Your task to perform on an android device: Search for pizza restaurants on Maps Image 0: 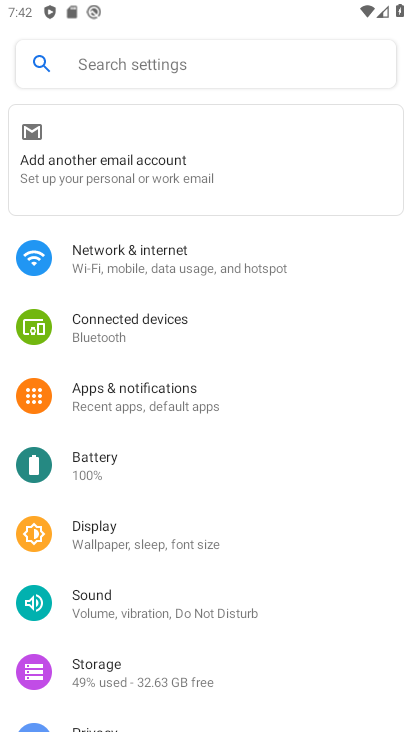
Step 0: press home button
Your task to perform on an android device: Search for pizza restaurants on Maps Image 1: 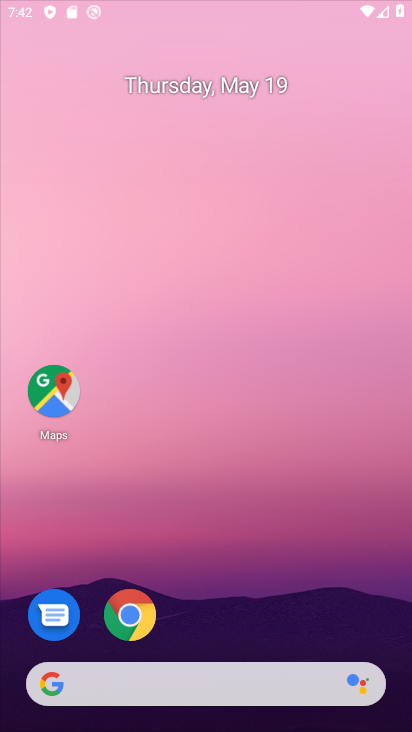
Step 1: drag from (210, 622) to (202, 150)
Your task to perform on an android device: Search for pizza restaurants on Maps Image 2: 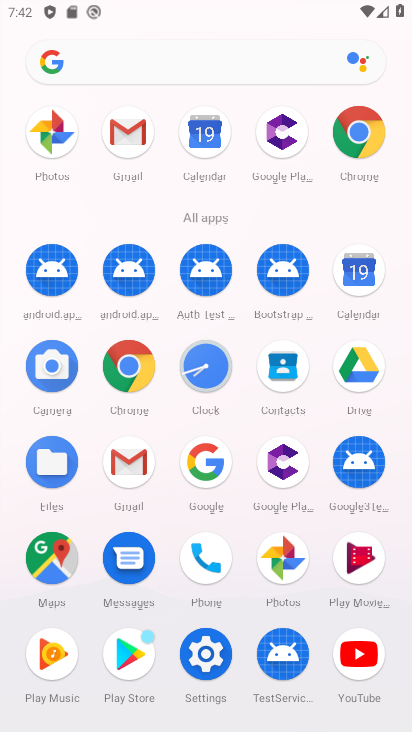
Step 2: click (59, 561)
Your task to perform on an android device: Search for pizza restaurants on Maps Image 3: 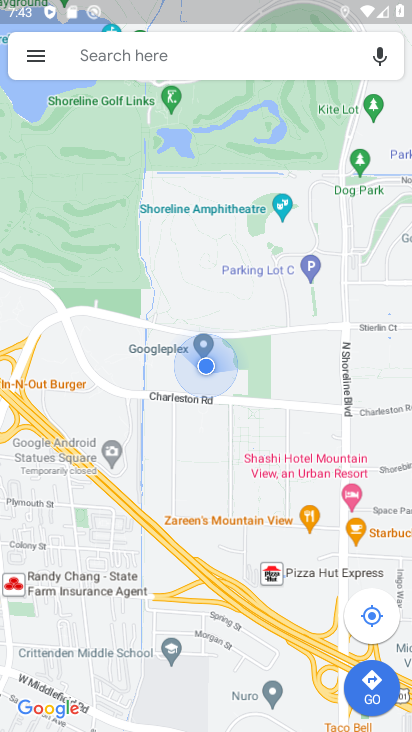
Step 3: click (265, 60)
Your task to perform on an android device: Search for pizza restaurants on Maps Image 4: 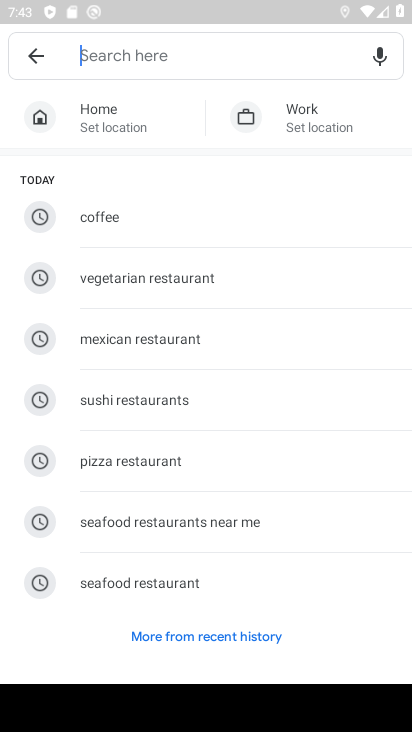
Step 4: drag from (190, 520) to (244, 217)
Your task to perform on an android device: Search for pizza restaurants on Maps Image 5: 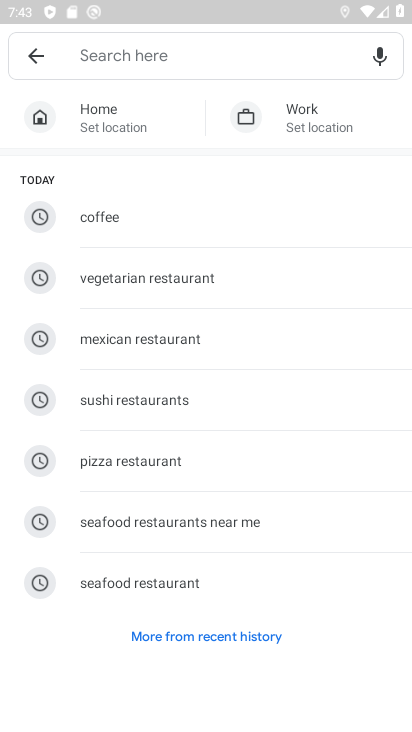
Step 5: click (170, 465)
Your task to perform on an android device: Search for pizza restaurants on Maps Image 6: 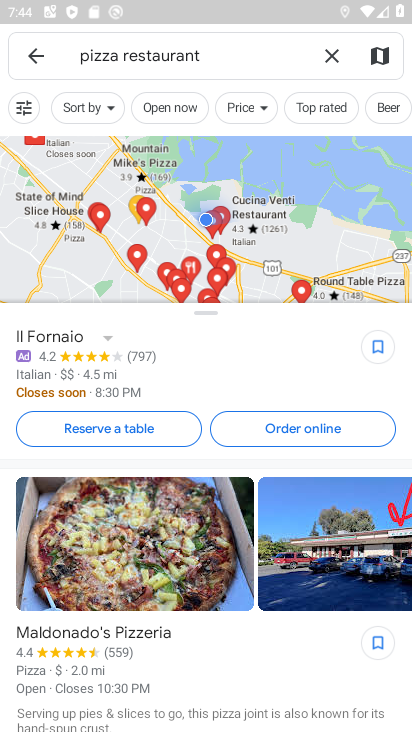
Step 6: task complete